Your task to perform on an android device: What's on my calendar tomorrow? Image 0: 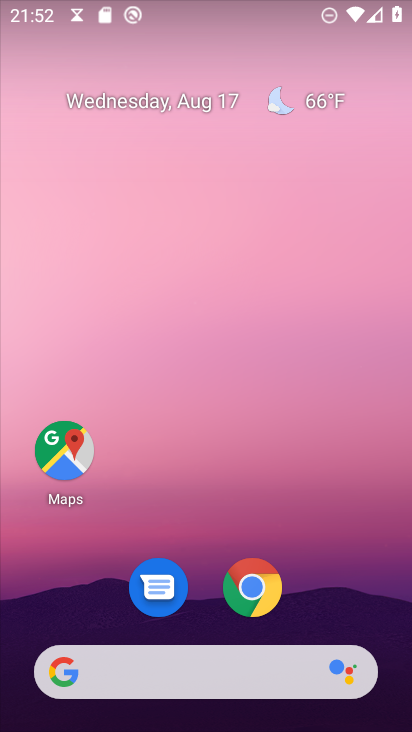
Step 0: drag from (4, 691) to (314, 214)
Your task to perform on an android device: What's on my calendar tomorrow? Image 1: 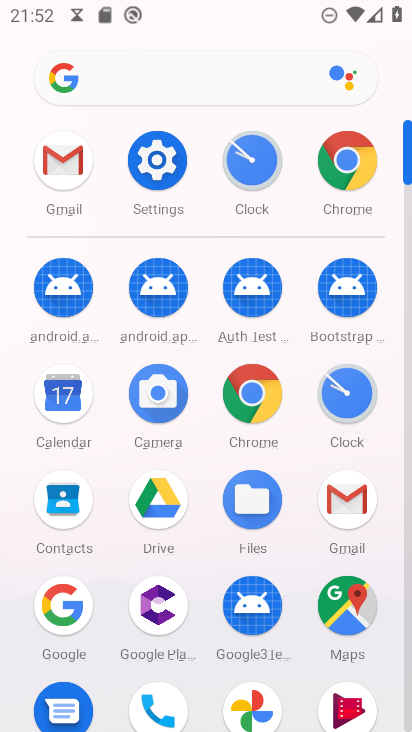
Step 1: click (43, 396)
Your task to perform on an android device: What's on my calendar tomorrow? Image 2: 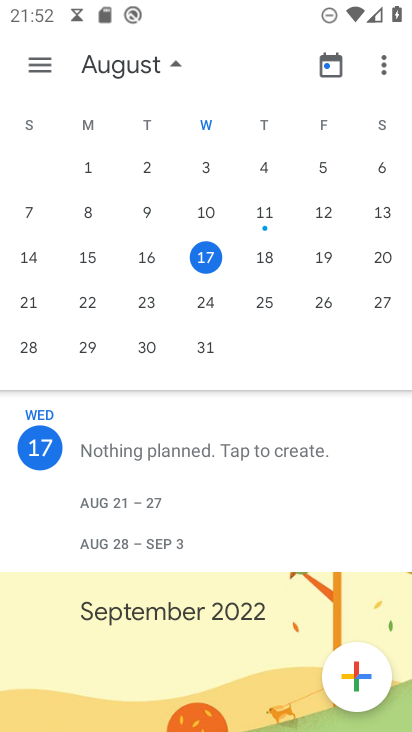
Step 2: task complete